Your task to perform on an android device: Open settings on Google Maps Image 0: 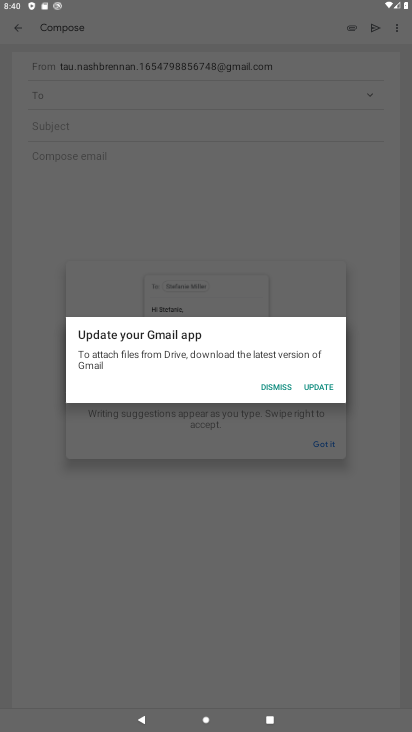
Step 0: press home button
Your task to perform on an android device: Open settings on Google Maps Image 1: 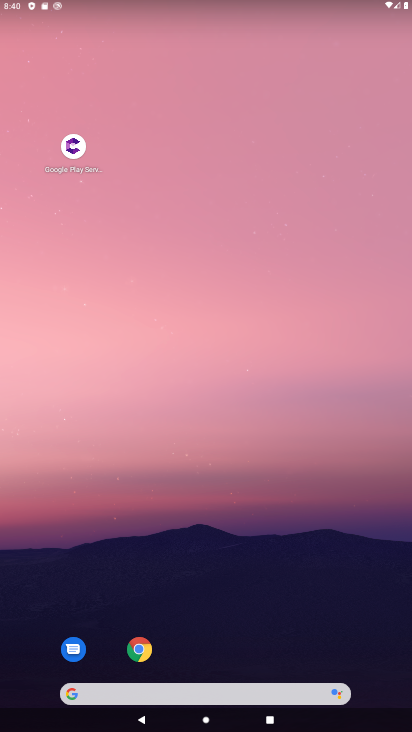
Step 1: drag from (204, 673) to (204, 209)
Your task to perform on an android device: Open settings on Google Maps Image 2: 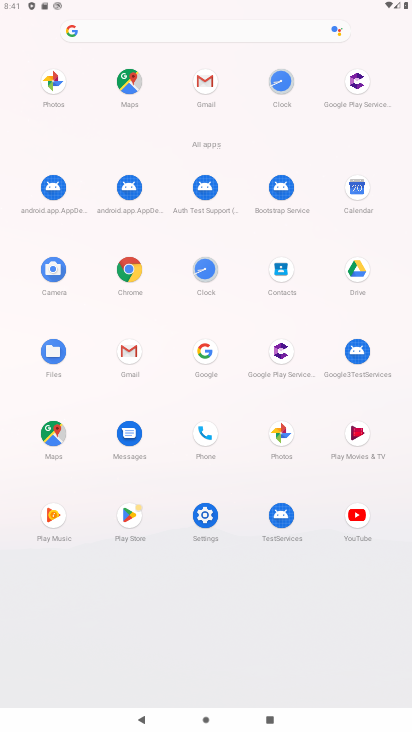
Step 2: click (129, 91)
Your task to perform on an android device: Open settings on Google Maps Image 3: 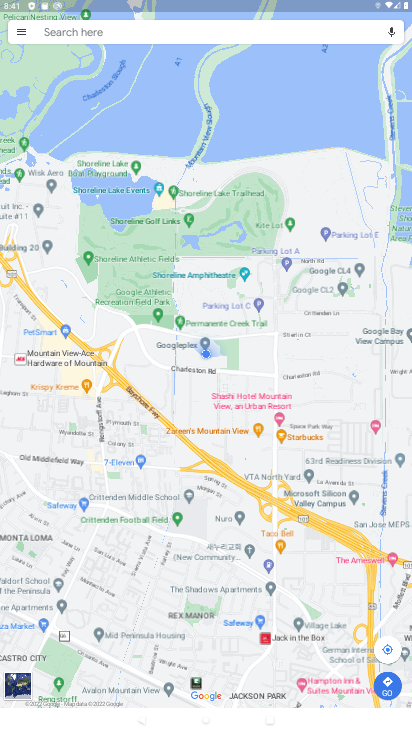
Step 3: click (16, 34)
Your task to perform on an android device: Open settings on Google Maps Image 4: 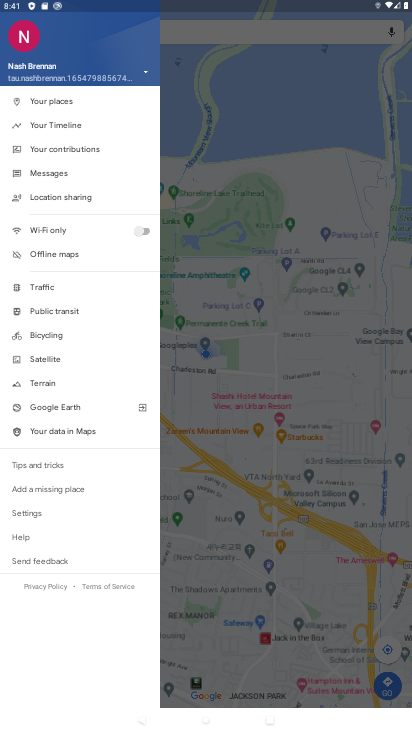
Step 4: click (20, 516)
Your task to perform on an android device: Open settings on Google Maps Image 5: 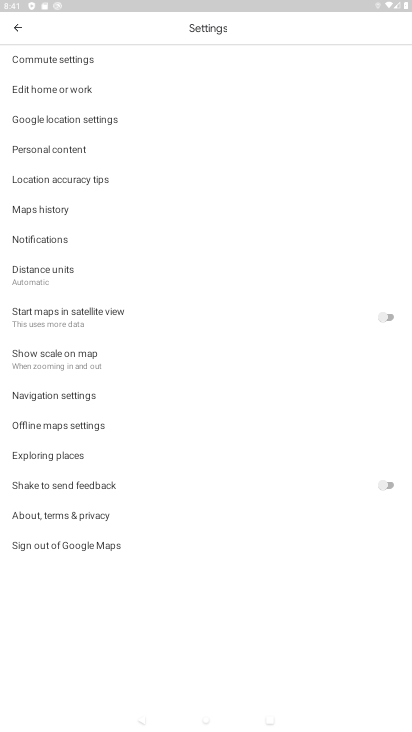
Step 5: task complete